Your task to perform on an android device: turn notification dots on Image 0: 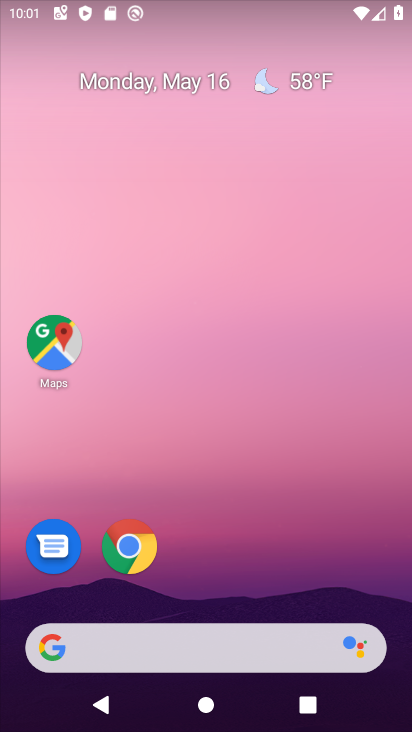
Step 0: drag from (266, 547) to (170, 135)
Your task to perform on an android device: turn notification dots on Image 1: 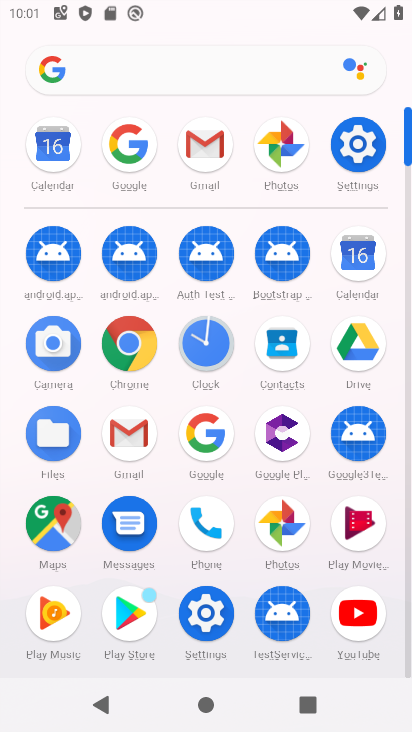
Step 1: click (356, 144)
Your task to perform on an android device: turn notification dots on Image 2: 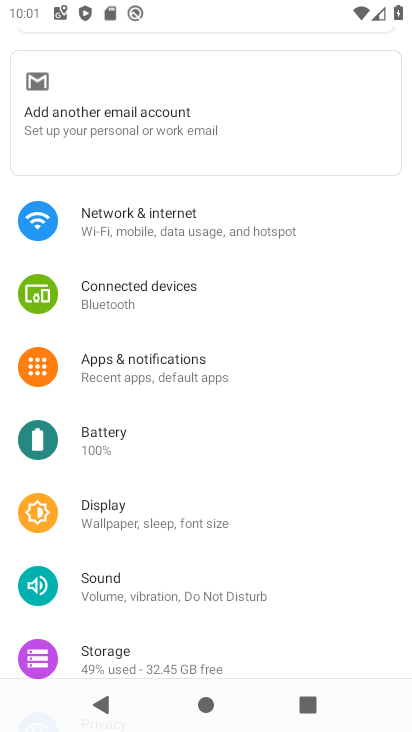
Step 2: click (152, 371)
Your task to perform on an android device: turn notification dots on Image 3: 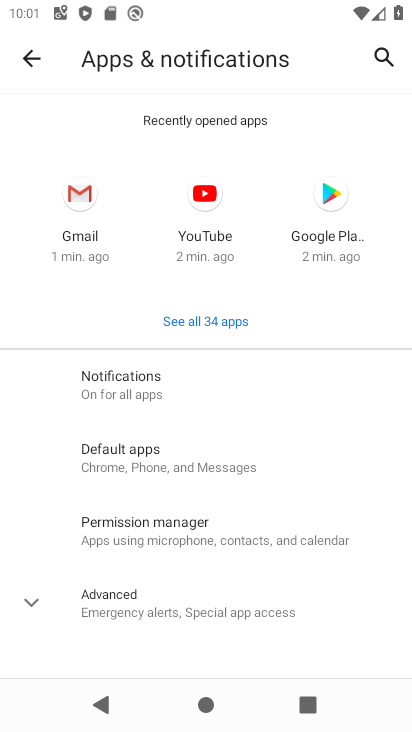
Step 3: click (142, 380)
Your task to perform on an android device: turn notification dots on Image 4: 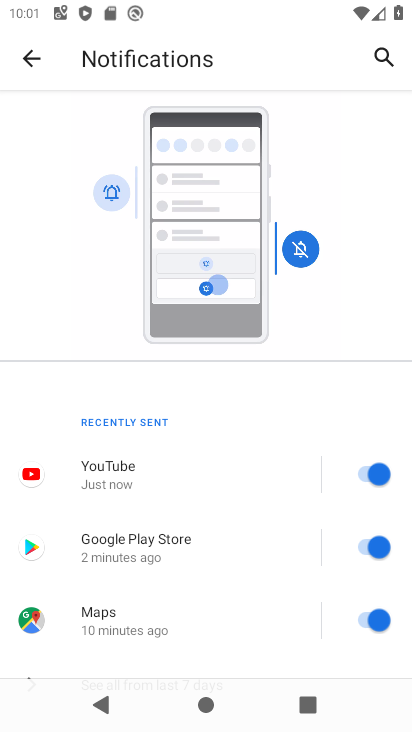
Step 4: drag from (185, 618) to (195, 480)
Your task to perform on an android device: turn notification dots on Image 5: 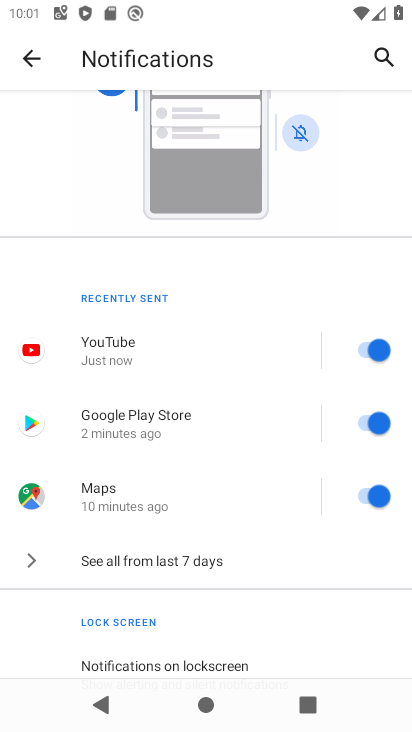
Step 5: drag from (169, 614) to (212, 494)
Your task to perform on an android device: turn notification dots on Image 6: 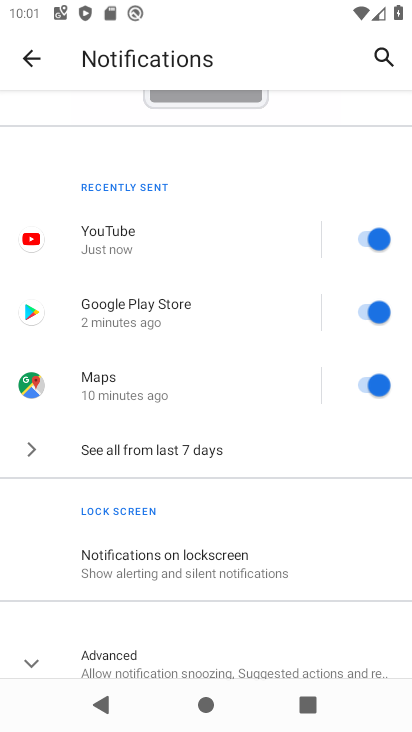
Step 6: drag from (189, 579) to (239, 474)
Your task to perform on an android device: turn notification dots on Image 7: 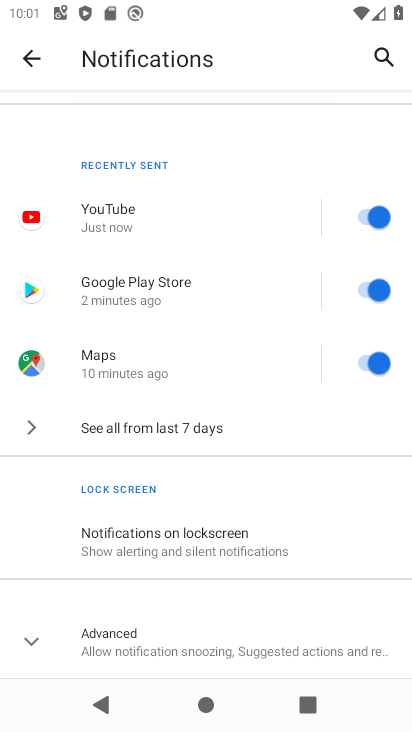
Step 7: click (179, 643)
Your task to perform on an android device: turn notification dots on Image 8: 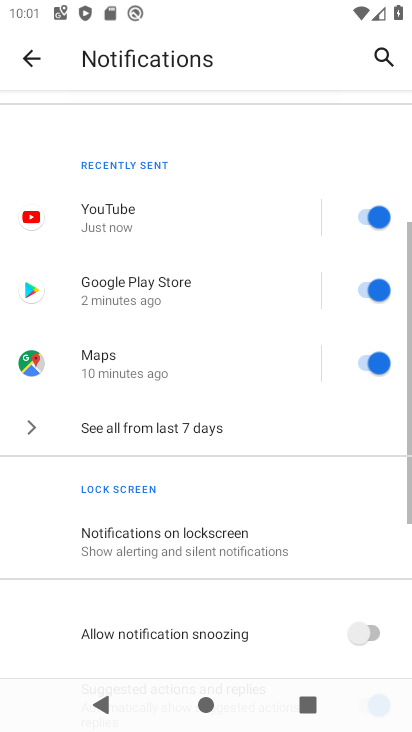
Step 8: task complete